Your task to perform on an android device: Open battery settings Image 0: 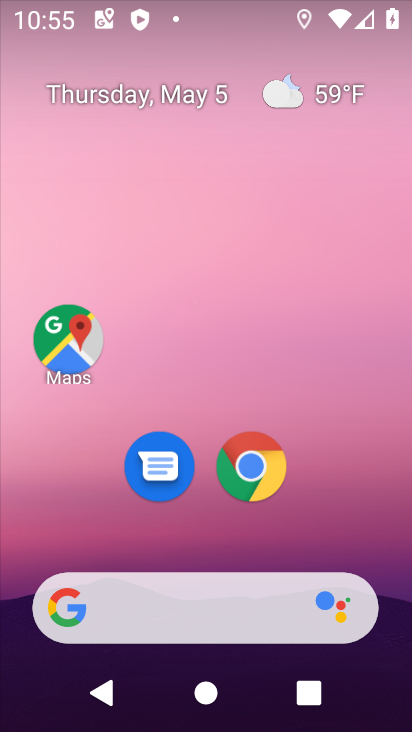
Step 0: drag from (347, 497) to (345, 131)
Your task to perform on an android device: Open battery settings Image 1: 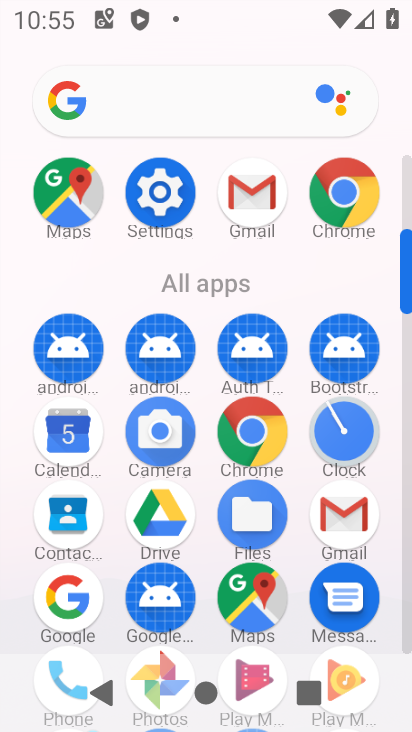
Step 1: click (159, 189)
Your task to perform on an android device: Open battery settings Image 2: 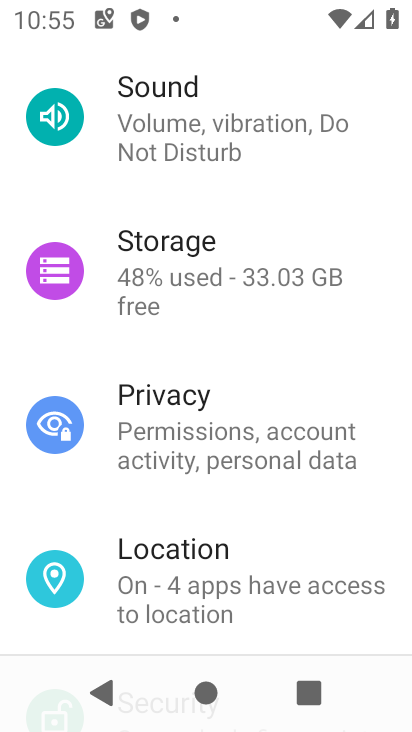
Step 2: drag from (161, 475) to (164, 331)
Your task to perform on an android device: Open battery settings Image 3: 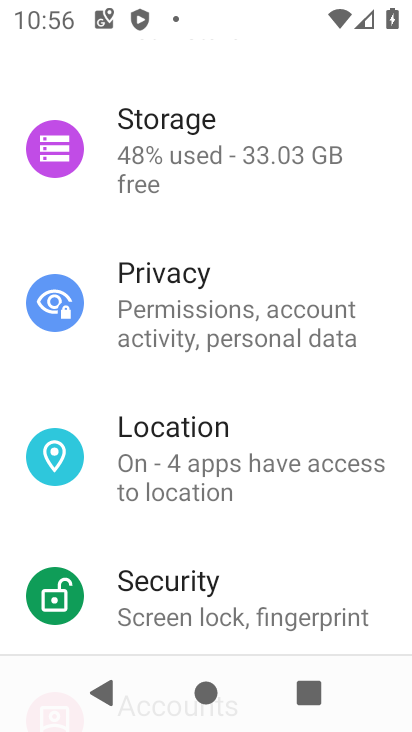
Step 3: drag from (188, 486) to (181, 205)
Your task to perform on an android device: Open battery settings Image 4: 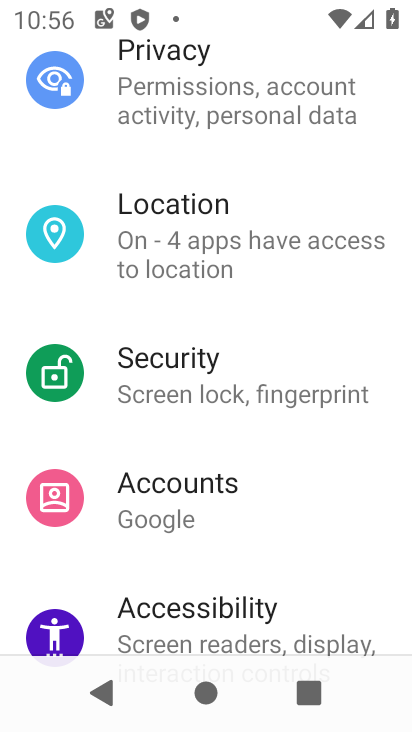
Step 4: drag from (222, 549) to (192, 649)
Your task to perform on an android device: Open battery settings Image 5: 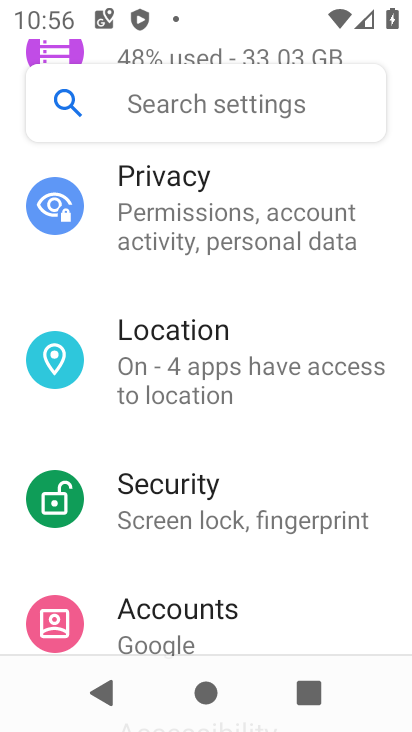
Step 5: drag from (192, 233) to (215, 614)
Your task to perform on an android device: Open battery settings Image 6: 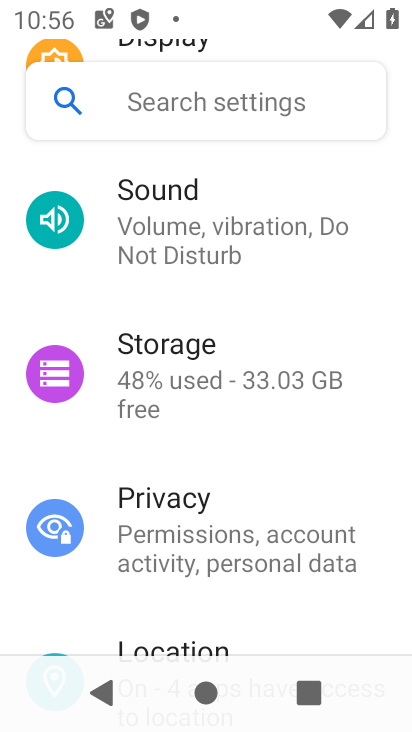
Step 6: drag from (235, 203) to (255, 590)
Your task to perform on an android device: Open battery settings Image 7: 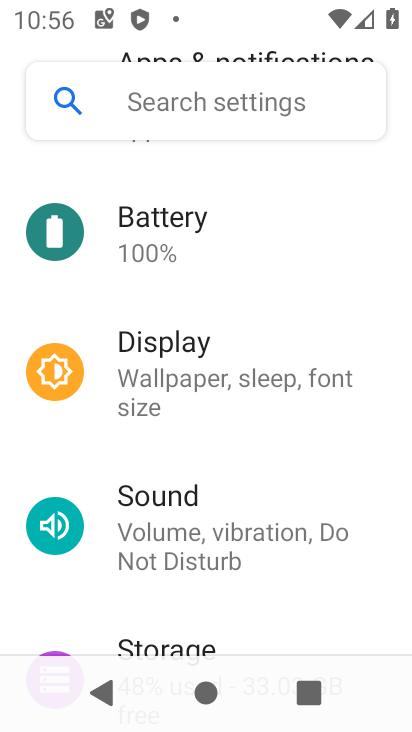
Step 7: click (190, 237)
Your task to perform on an android device: Open battery settings Image 8: 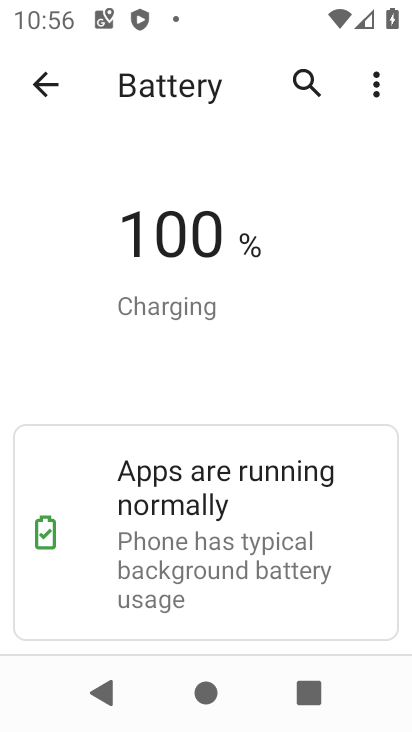
Step 8: task complete